Your task to perform on an android device: search for starred emails in the gmail app Image 0: 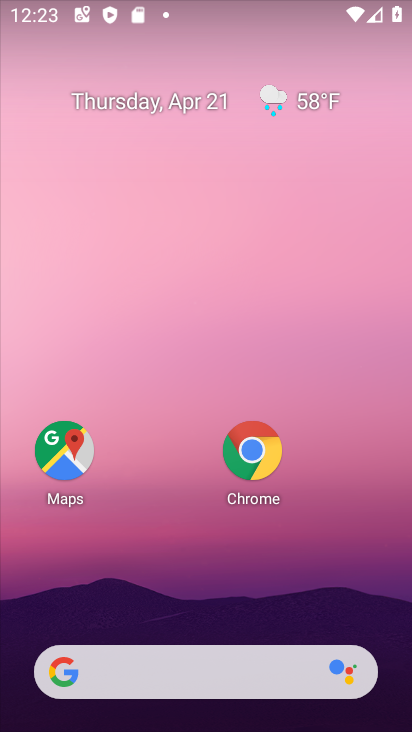
Step 0: drag from (136, 499) to (129, 192)
Your task to perform on an android device: search for starred emails in the gmail app Image 1: 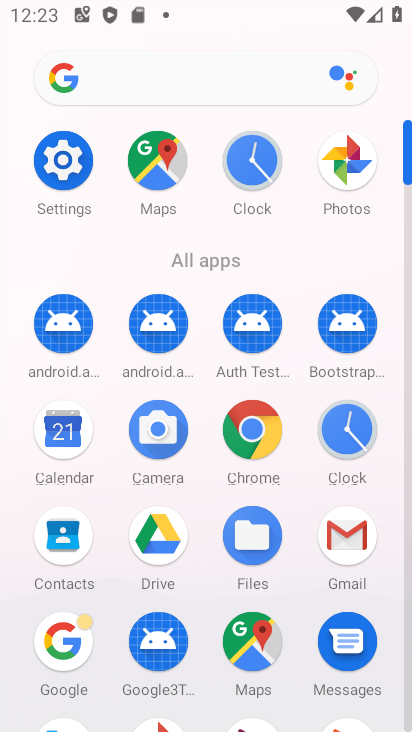
Step 1: click (360, 535)
Your task to perform on an android device: search for starred emails in the gmail app Image 2: 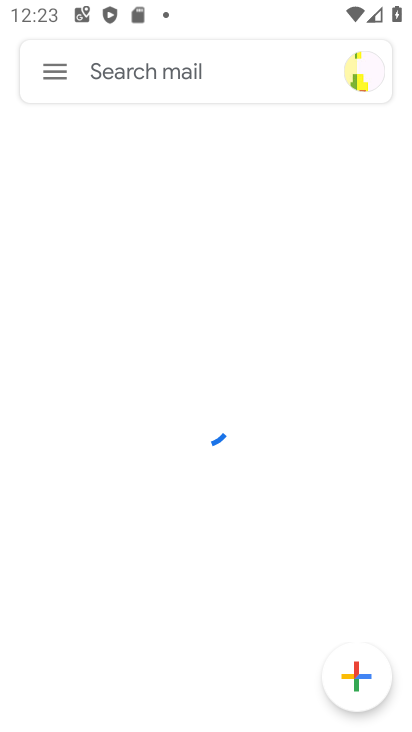
Step 2: click (43, 68)
Your task to perform on an android device: search for starred emails in the gmail app Image 3: 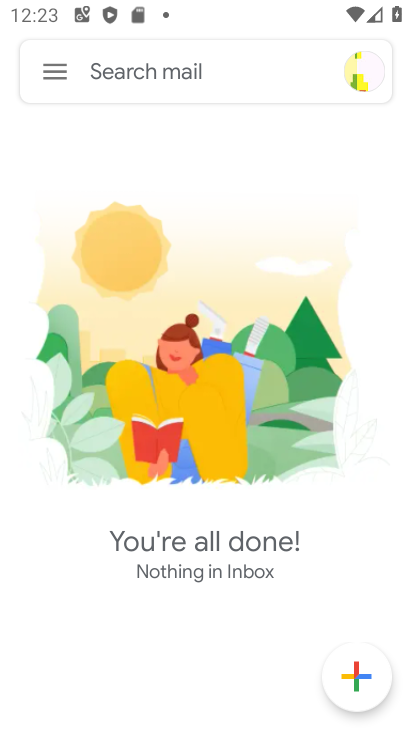
Step 3: click (41, 71)
Your task to perform on an android device: search for starred emails in the gmail app Image 4: 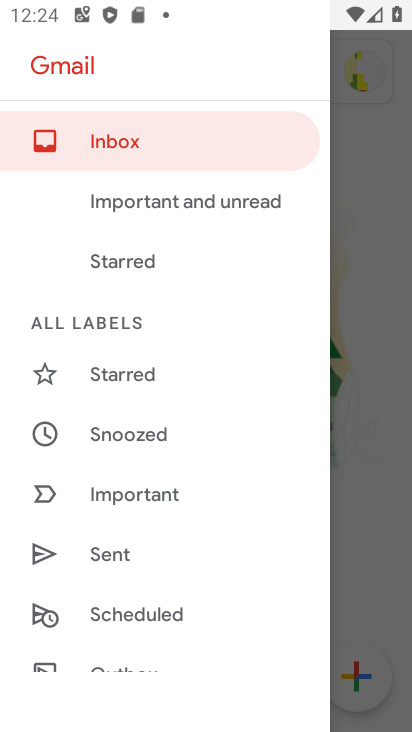
Step 4: click (105, 363)
Your task to perform on an android device: search for starred emails in the gmail app Image 5: 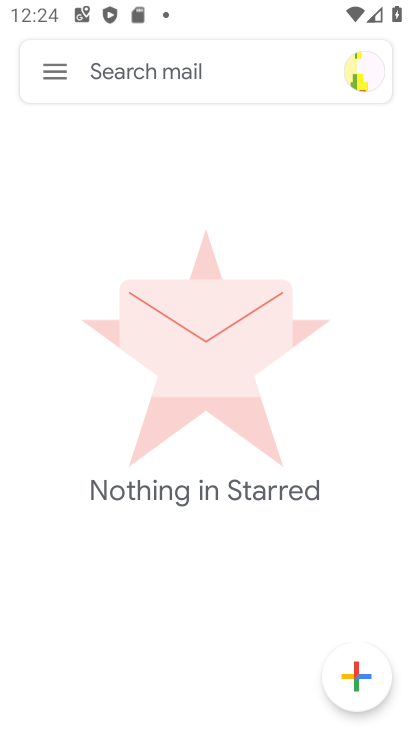
Step 5: task complete